Your task to perform on an android device: Open calendar and show me the first week of next month Image 0: 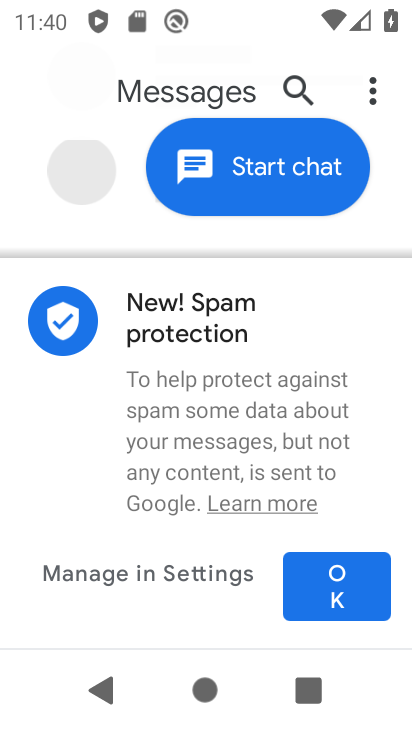
Step 0: press home button
Your task to perform on an android device: Open calendar and show me the first week of next month Image 1: 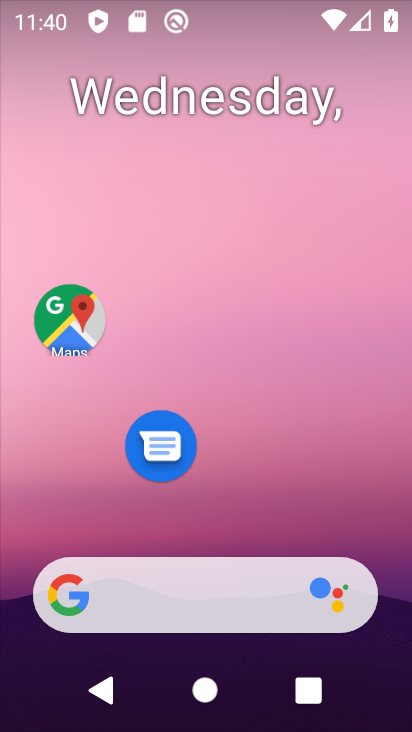
Step 1: drag from (267, 470) to (75, 146)
Your task to perform on an android device: Open calendar and show me the first week of next month Image 2: 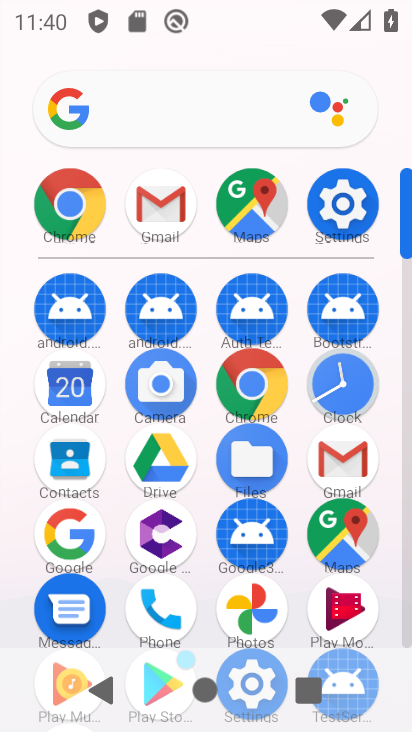
Step 2: click (70, 393)
Your task to perform on an android device: Open calendar and show me the first week of next month Image 3: 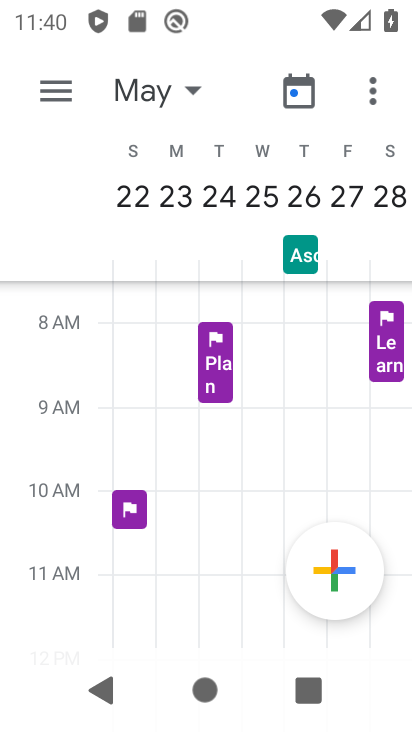
Step 3: drag from (198, 190) to (405, 197)
Your task to perform on an android device: Open calendar and show me the first week of next month Image 4: 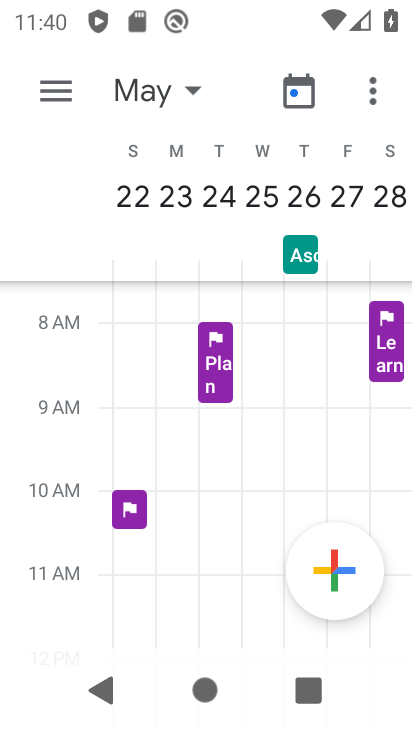
Step 4: drag from (124, 204) to (409, 199)
Your task to perform on an android device: Open calendar and show me the first week of next month Image 5: 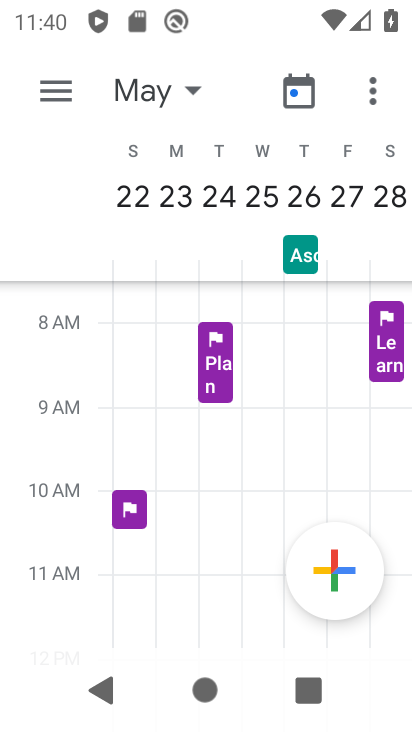
Step 5: drag from (137, 195) to (386, 248)
Your task to perform on an android device: Open calendar and show me the first week of next month Image 6: 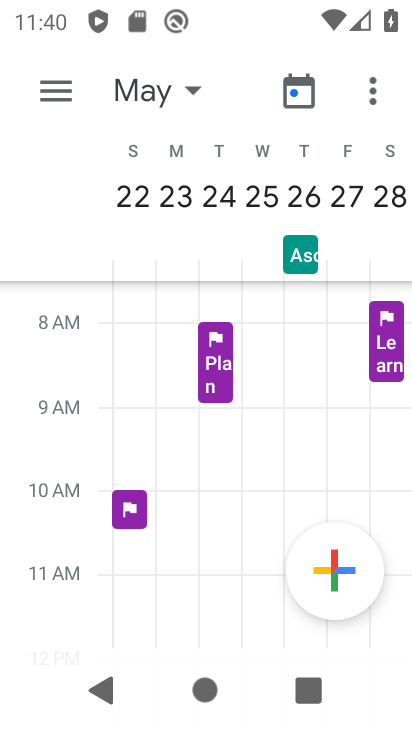
Step 6: drag from (201, 190) to (389, 266)
Your task to perform on an android device: Open calendar and show me the first week of next month Image 7: 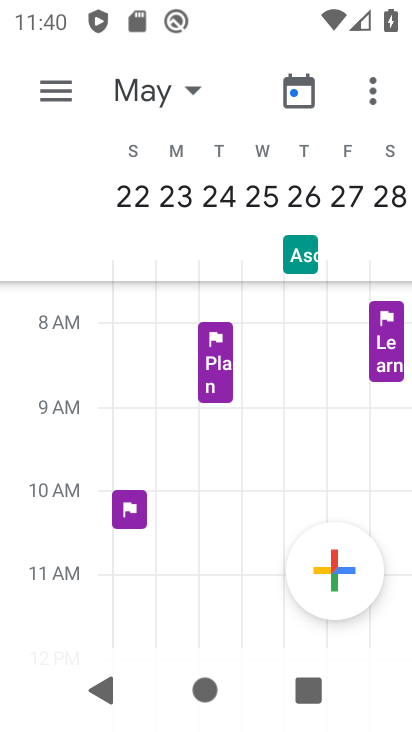
Step 7: click (189, 91)
Your task to perform on an android device: Open calendar and show me the first week of next month Image 8: 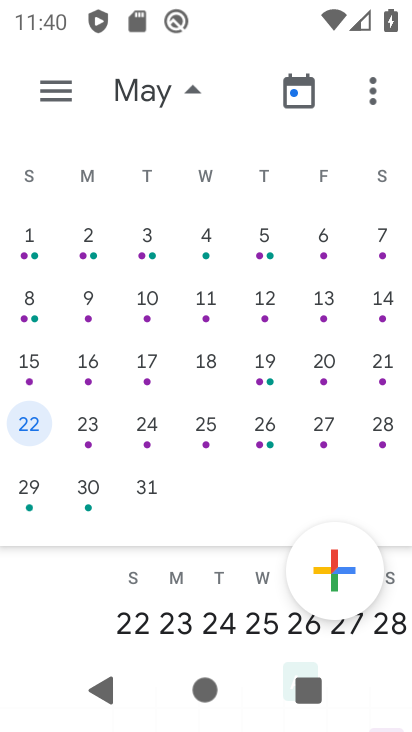
Step 8: click (28, 238)
Your task to perform on an android device: Open calendar and show me the first week of next month Image 9: 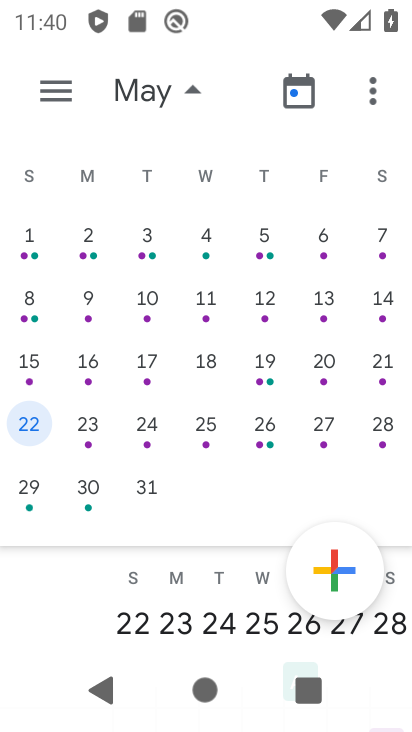
Step 9: click (28, 238)
Your task to perform on an android device: Open calendar and show me the first week of next month Image 10: 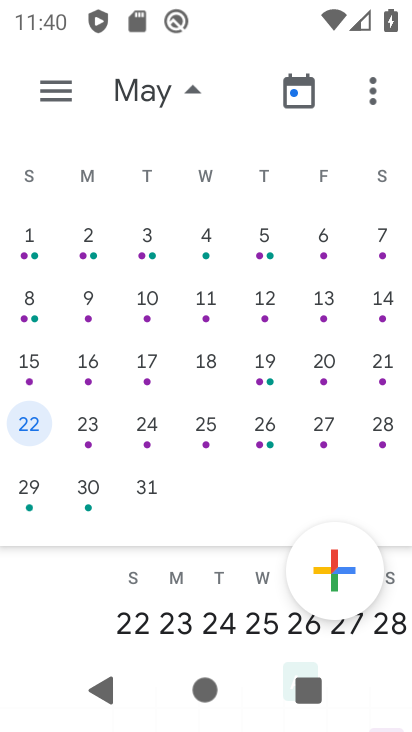
Step 10: click (29, 256)
Your task to perform on an android device: Open calendar and show me the first week of next month Image 11: 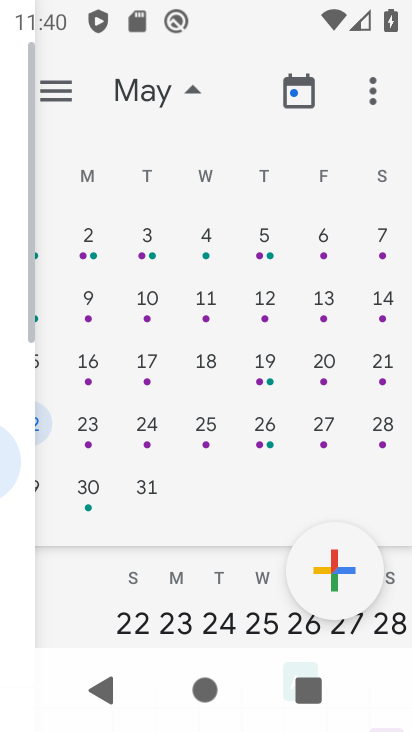
Step 11: click (29, 251)
Your task to perform on an android device: Open calendar and show me the first week of next month Image 12: 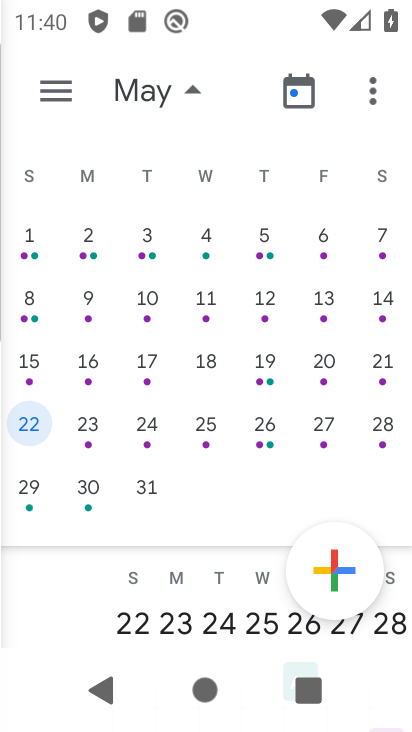
Step 12: click (29, 240)
Your task to perform on an android device: Open calendar and show me the first week of next month Image 13: 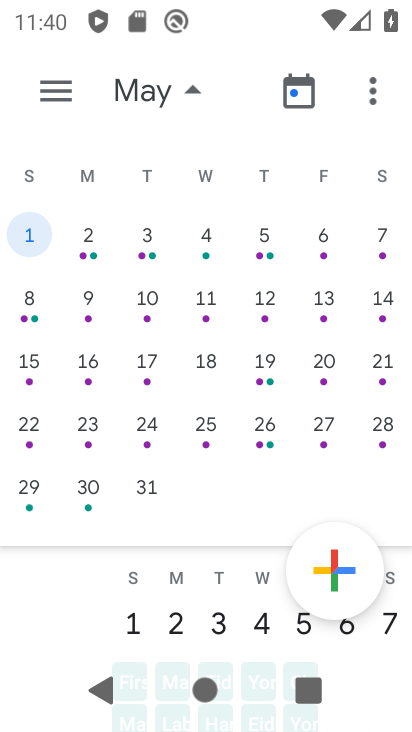
Step 13: click (29, 240)
Your task to perform on an android device: Open calendar and show me the first week of next month Image 14: 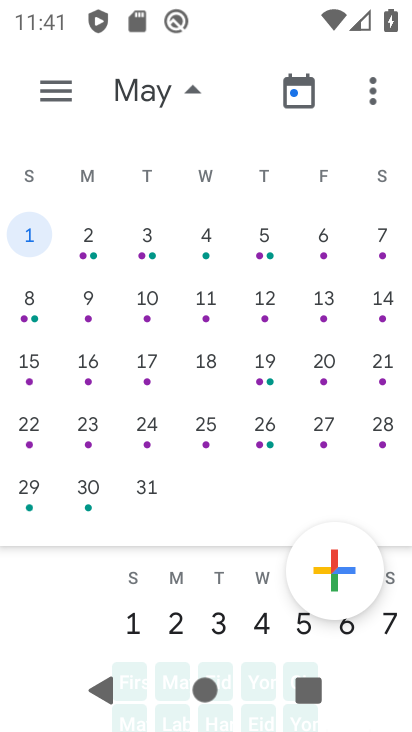
Step 14: click (192, 89)
Your task to perform on an android device: Open calendar and show me the first week of next month Image 15: 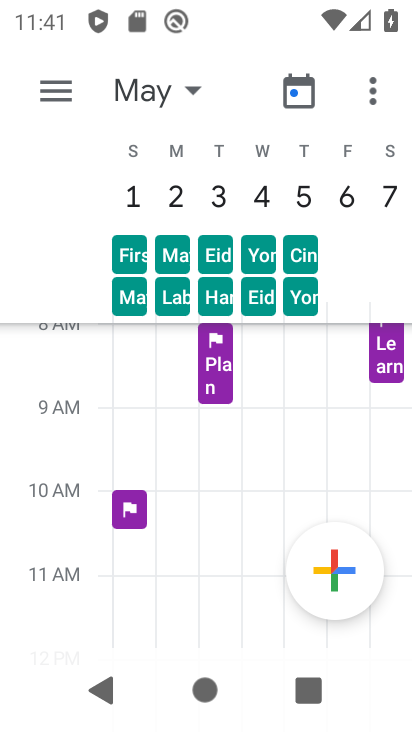
Step 15: task complete